Your task to perform on an android device: Go to settings Image 0: 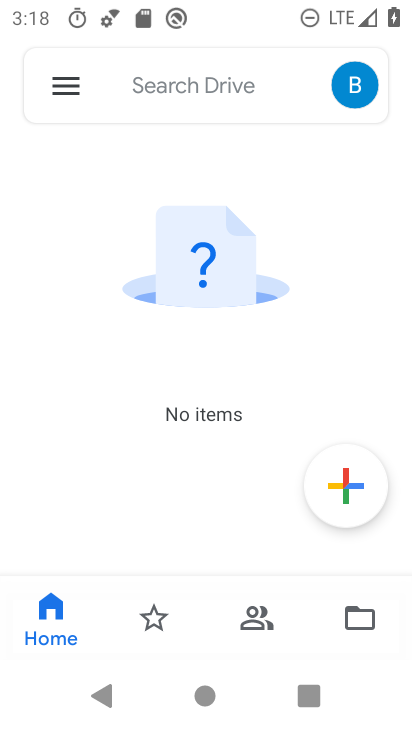
Step 0: press home button
Your task to perform on an android device: Go to settings Image 1: 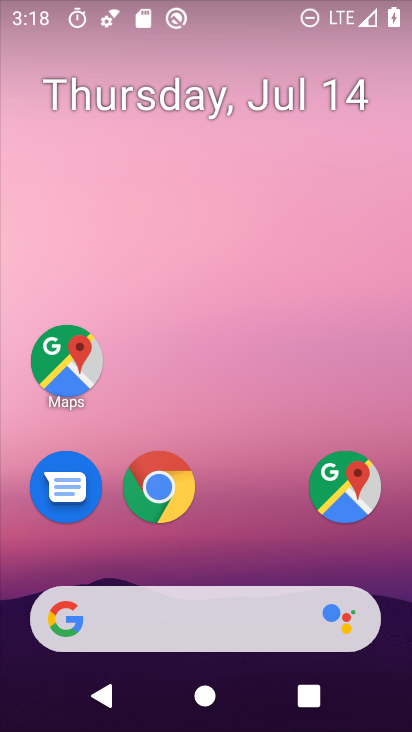
Step 1: drag from (270, 563) to (312, 104)
Your task to perform on an android device: Go to settings Image 2: 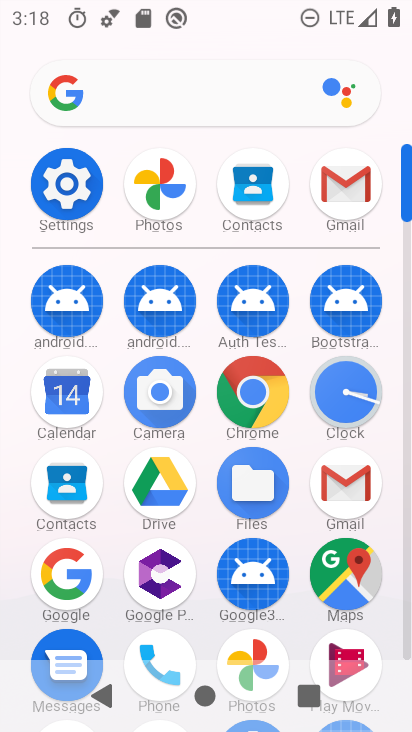
Step 2: click (73, 189)
Your task to perform on an android device: Go to settings Image 3: 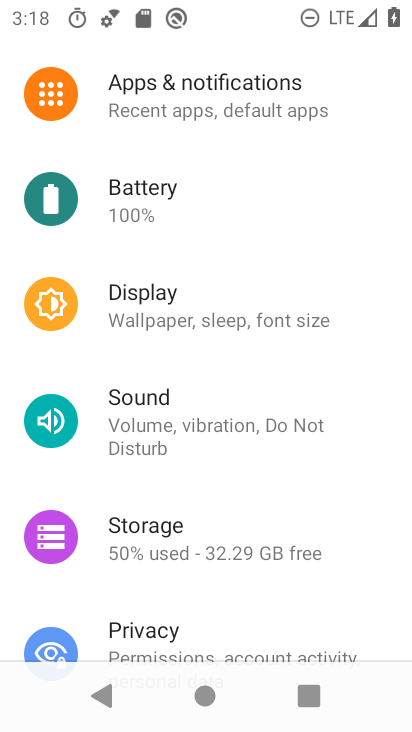
Step 3: task complete